Your task to perform on an android device: What's the news in the Bahamas? Image 0: 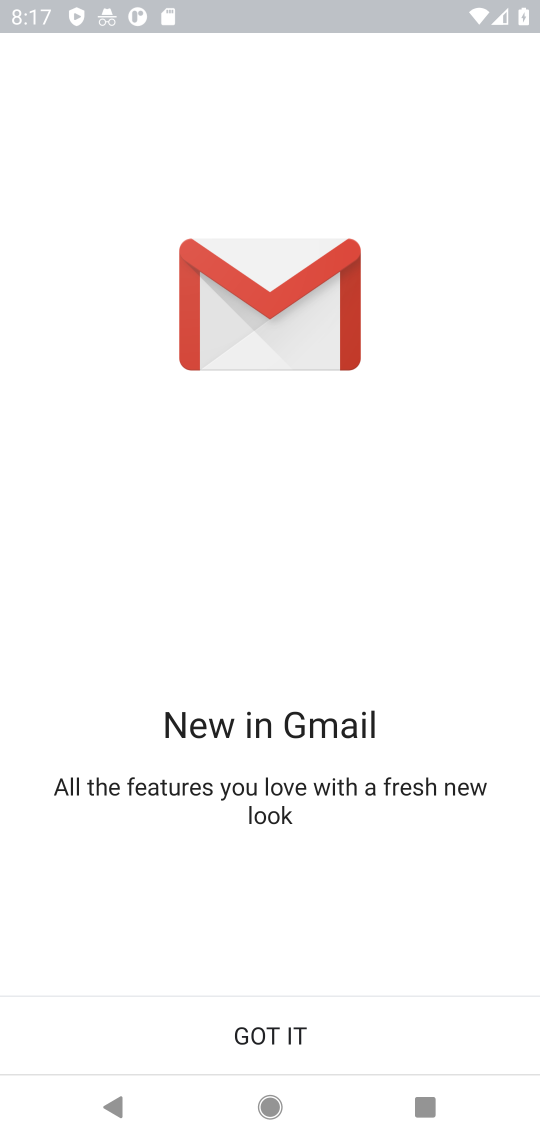
Step 0: press home button
Your task to perform on an android device: What's the news in the Bahamas? Image 1: 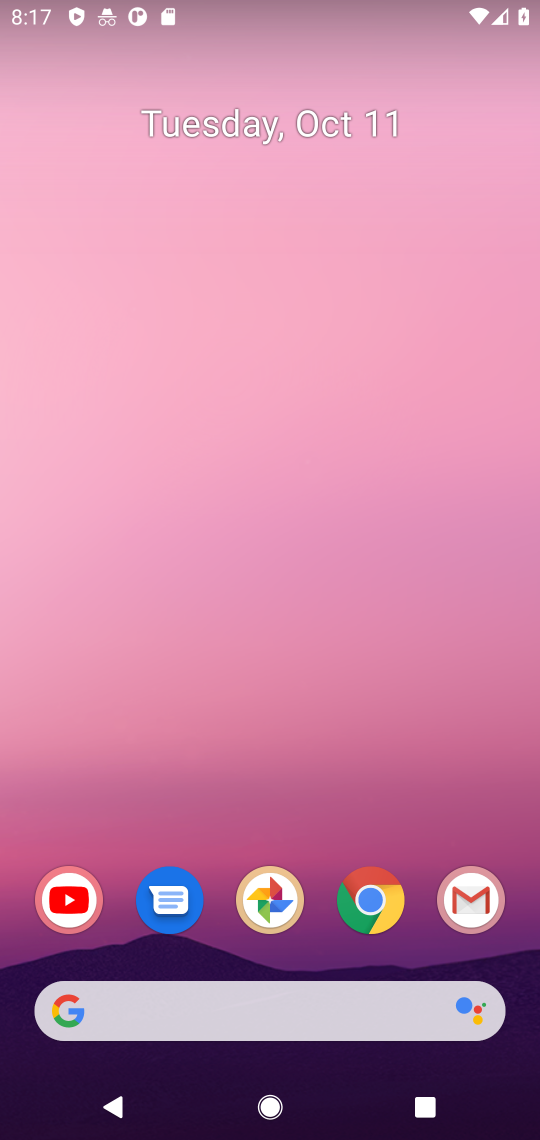
Step 1: click (365, 908)
Your task to perform on an android device: What's the news in the Bahamas? Image 2: 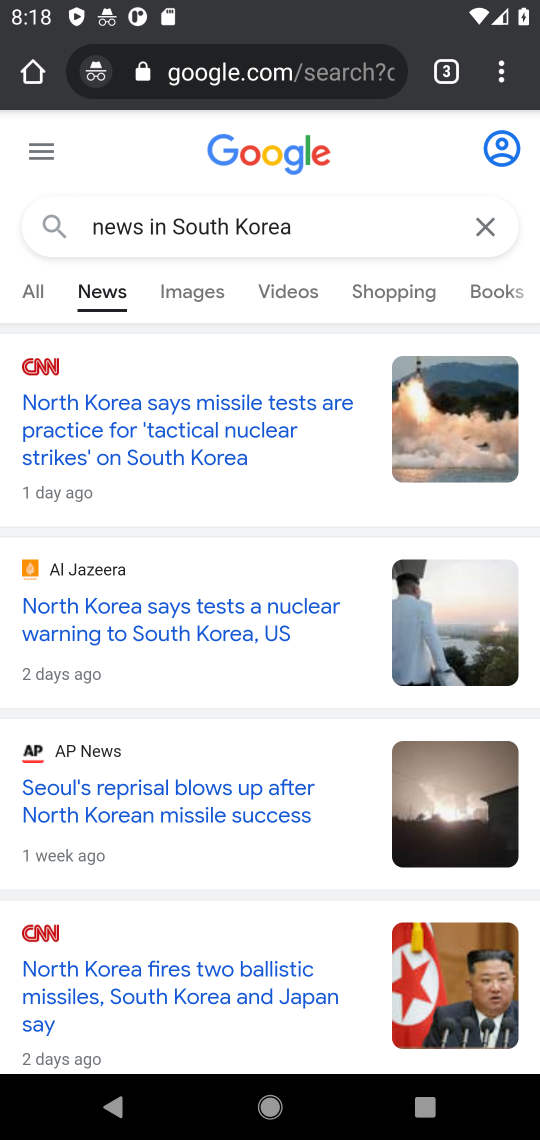
Step 2: click (278, 80)
Your task to perform on an android device: What's the news in the Bahamas? Image 3: 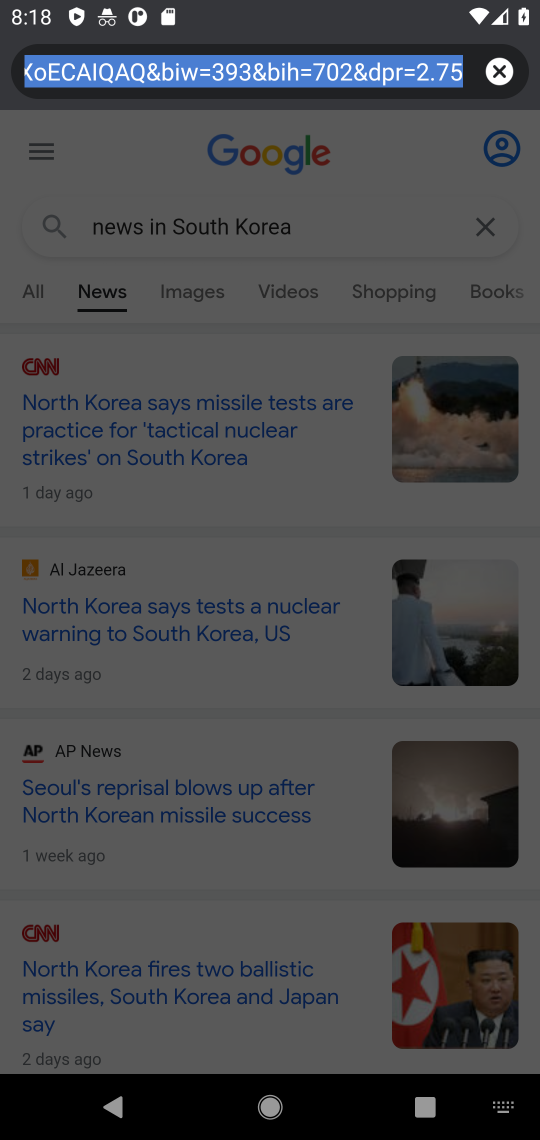
Step 3: type "news in the Bahamas"
Your task to perform on an android device: What's the news in the Bahamas? Image 4: 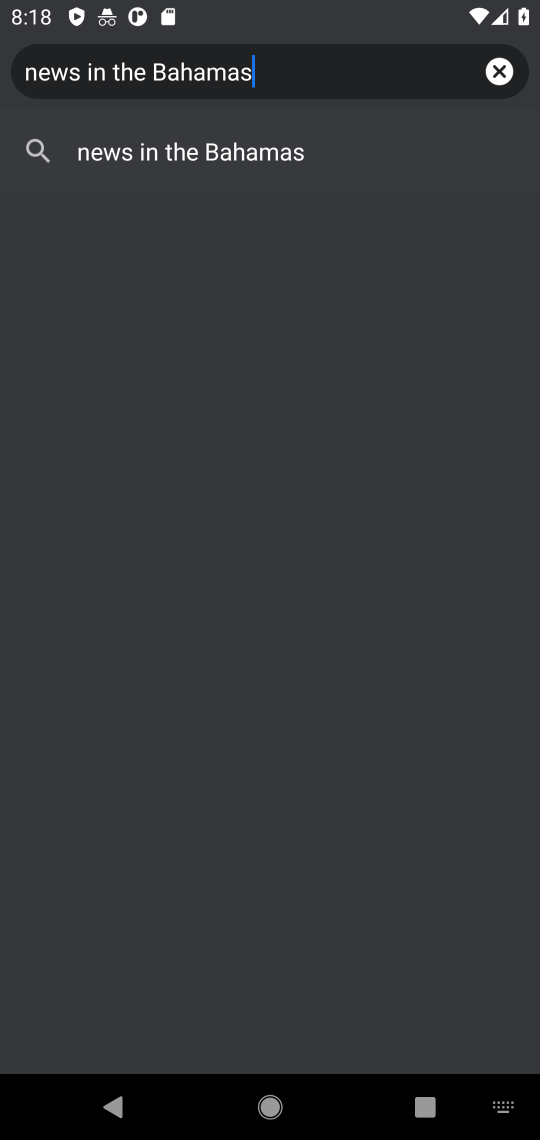
Step 4: click (292, 170)
Your task to perform on an android device: What's the news in the Bahamas? Image 5: 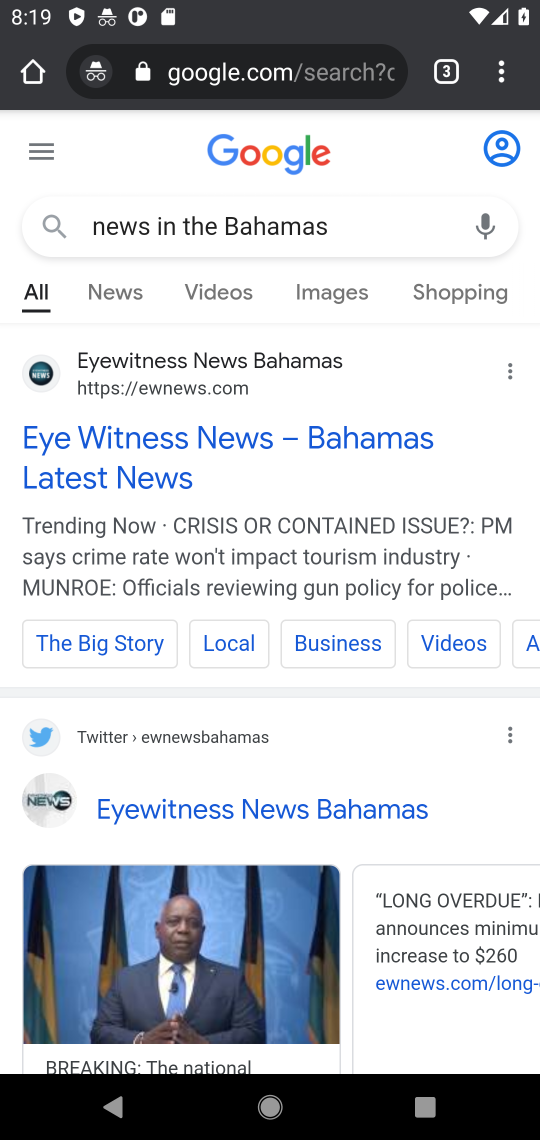
Step 5: drag from (442, 778) to (396, 342)
Your task to perform on an android device: What's the news in the Bahamas? Image 6: 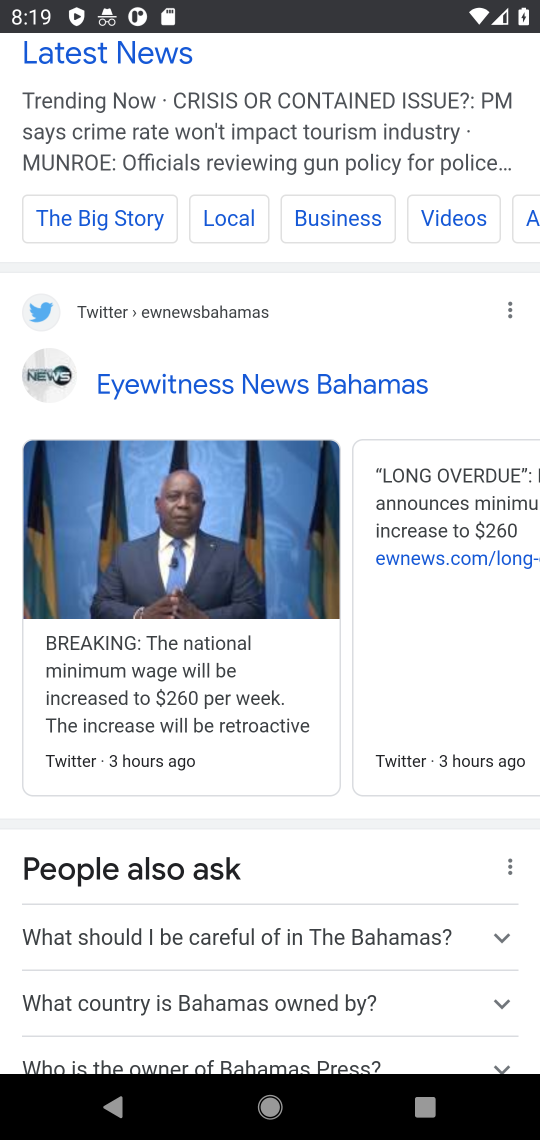
Step 6: drag from (130, 134) to (220, 514)
Your task to perform on an android device: What's the news in the Bahamas? Image 7: 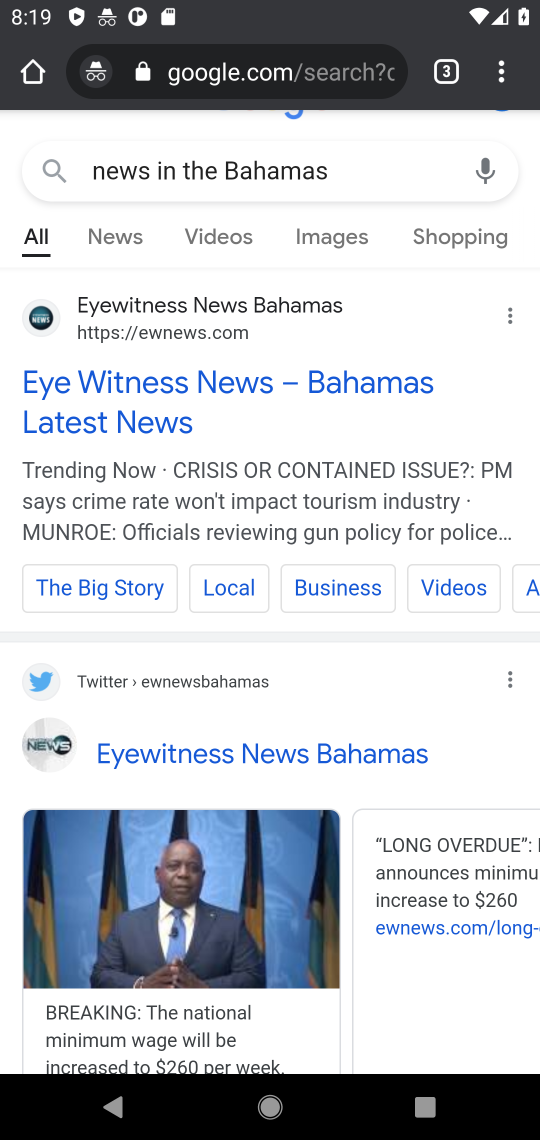
Step 7: click (118, 231)
Your task to perform on an android device: What's the news in the Bahamas? Image 8: 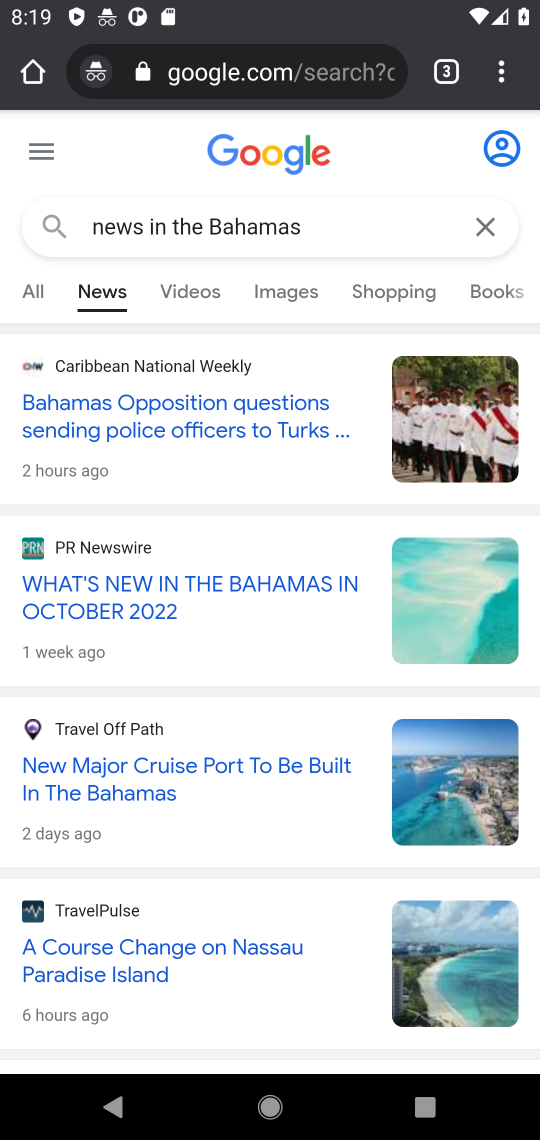
Step 8: click (118, 231)
Your task to perform on an android device: What's the news in the Bahamas? Image 9: 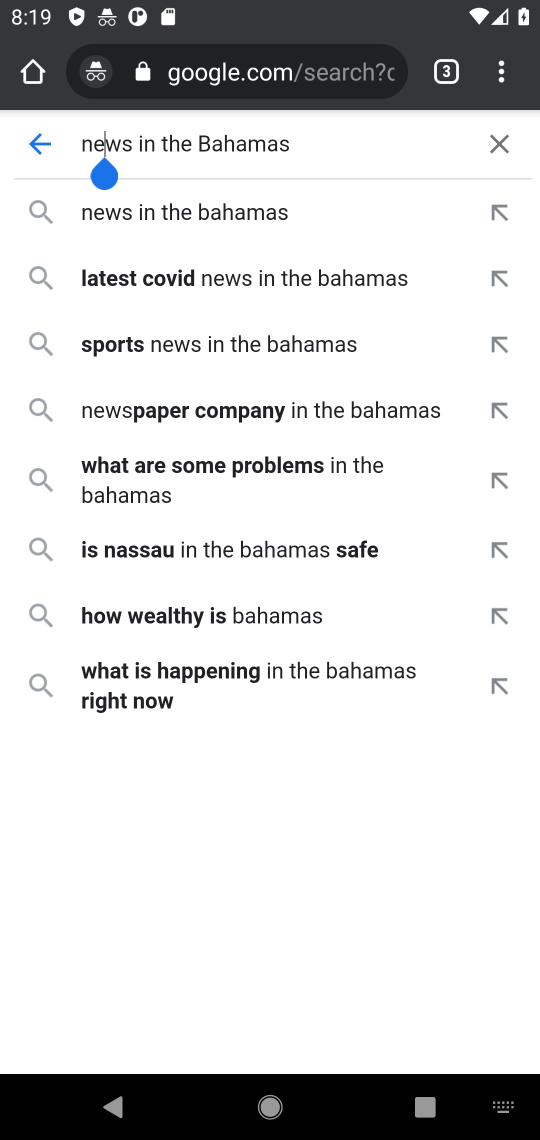
Step 9: click (256, 247)
Your task to perform on an android device: What's the news in the Bahamas? Image 10: 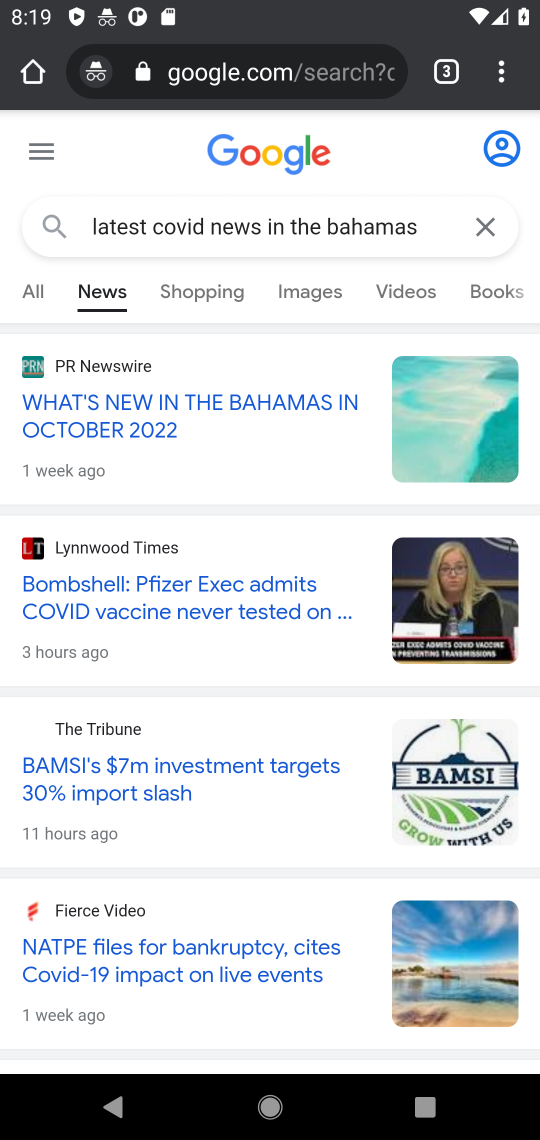
Step 10: task complete